Your task to perform on an android device: Open Maps and search for coffee Image 0: 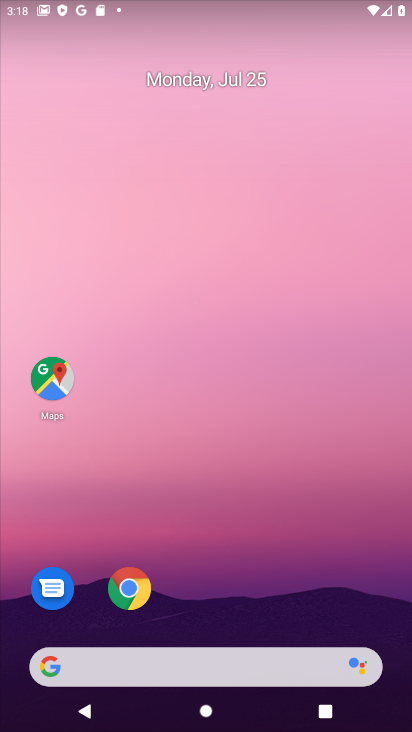
Step 0: click (50, 383)
Your task to perform on an android device: Open Maps and search for coffee Image 1: 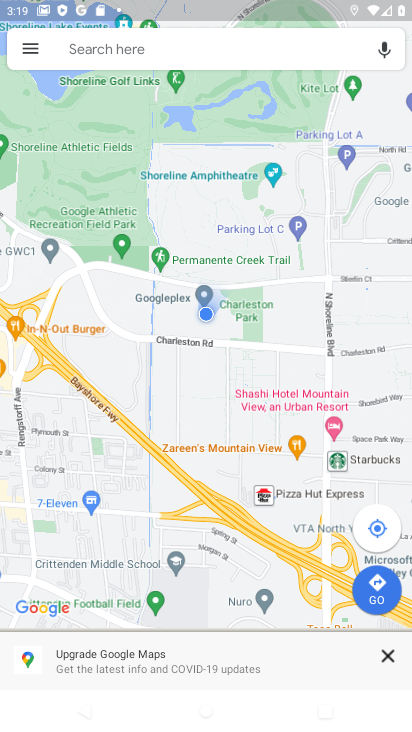
Step 1: click (173, 54)
Your task to perform on an android device: Open Maps and search for coffee Image 2: 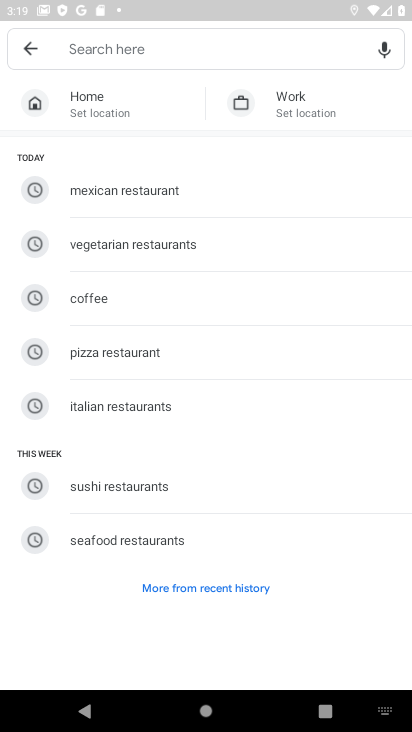
Step 2: click (31, 51)
Your task to perform on an android device: Open Maps and search for coffee Image 3: 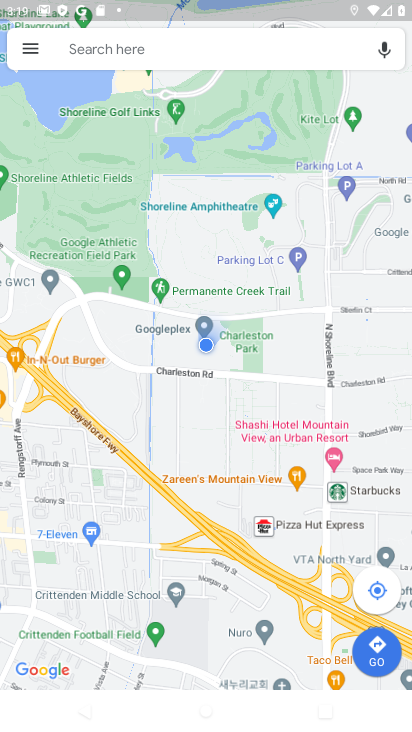
Step 3: click (152, 56)
Your task to perform on an android device: Open Maps and search for coffee Image 4: 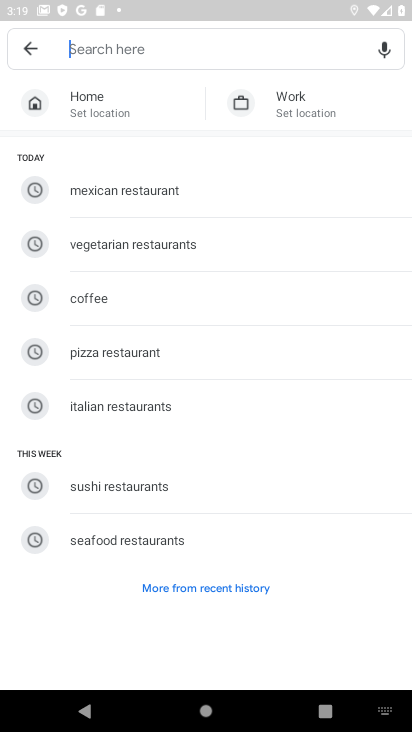
Step 4: type "coffee"
Your task to perform on an android device: Open Maps and search for coffee Image 5: 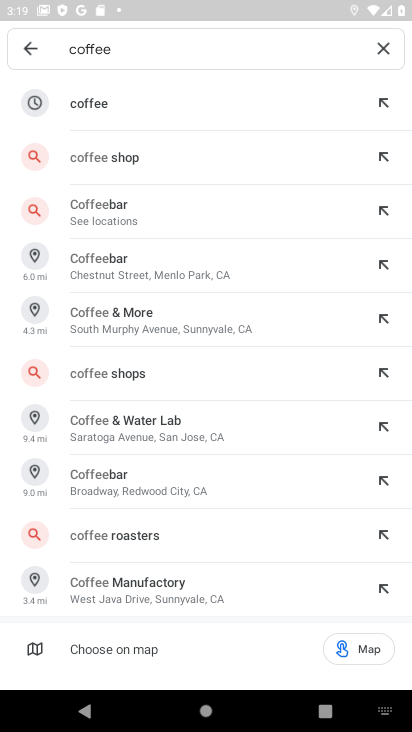
Step 5: click (86, 158)
Your task to perform on an android device: Open Maps and search for coffee Image 6: 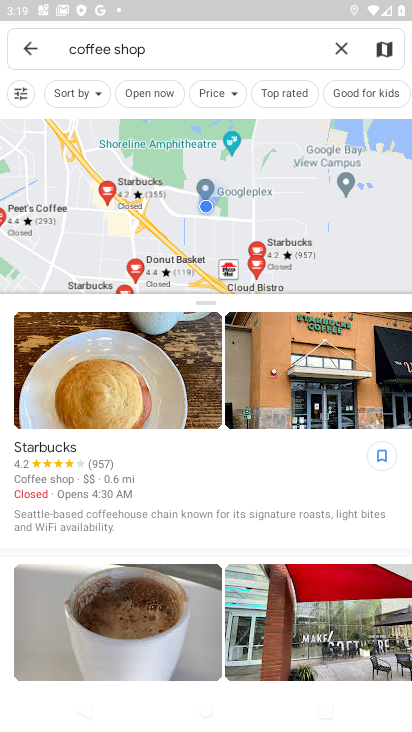
Step 6: task complete